Your task to perform on an android device: open chrome and create a bookmark for the current page Image 0: 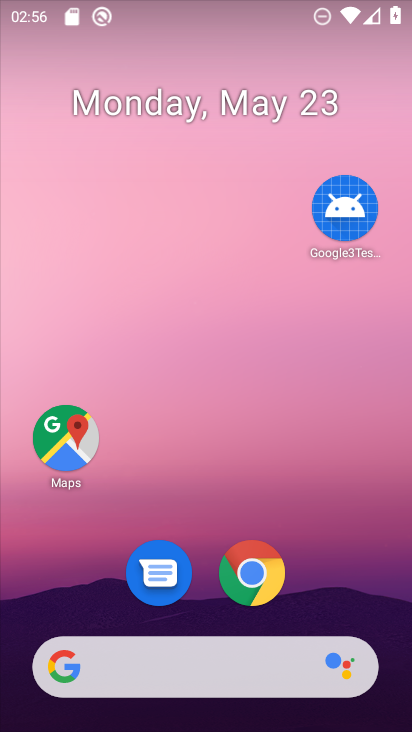
Step 0: click (250, 577)
Your task to perform on an android device: open chrome and create a bookmark for the current page Image 1: 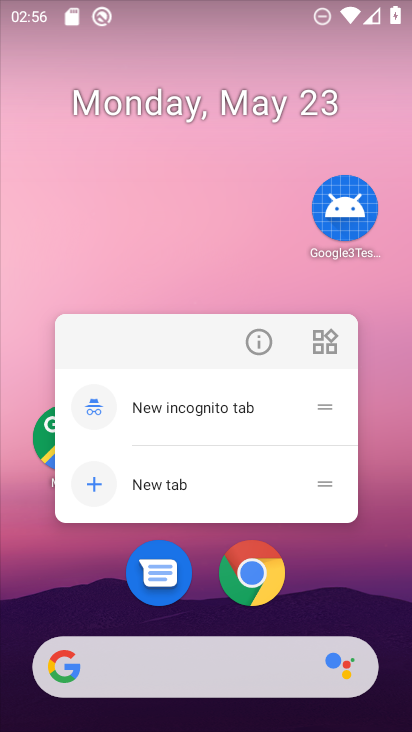
Step 1: click (250, 577)
Your task to perform on an android device: open chrome and create a bookmark for the current page Image 2: 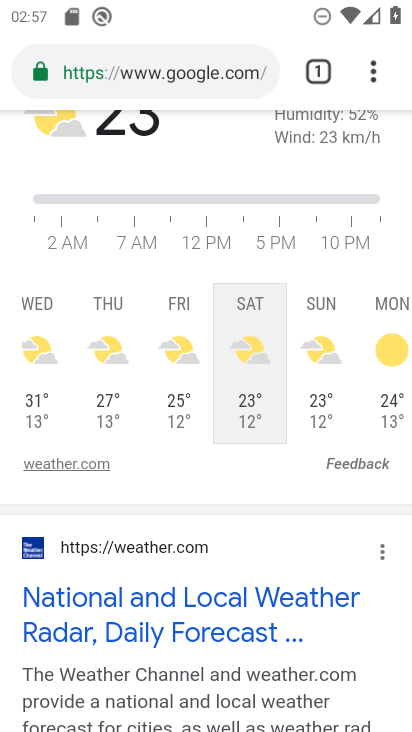
Step 2: task complete